Your task to perform on an android device: Go to Google maps Image 0: 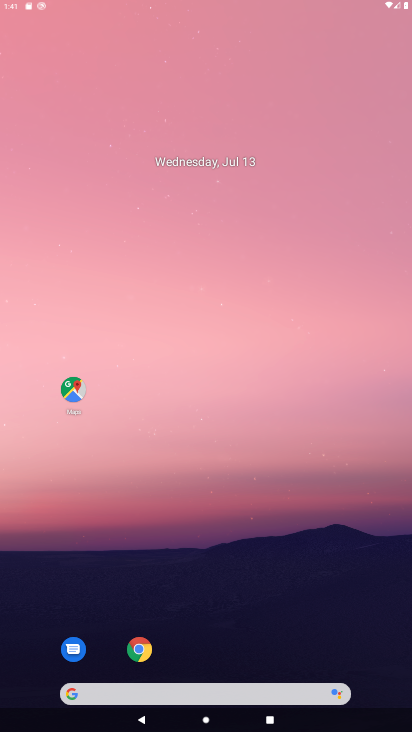
Step 0: press home button
Your task to perform on an android device: Go to Google maps Image 1: 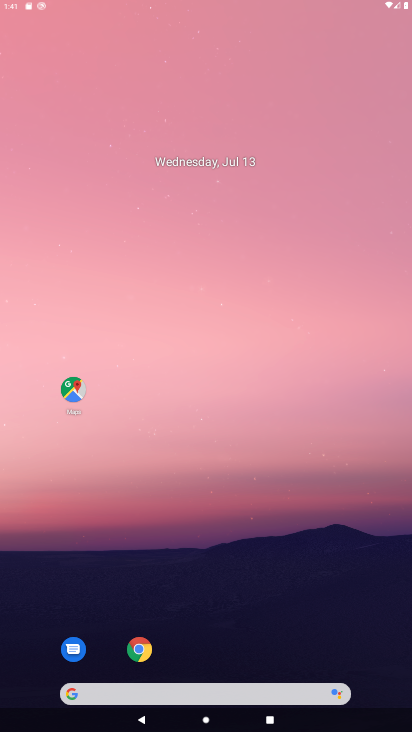
Step 1: click (295, 425)
Your task to perform on an android device: Go to Google maps Image 2: 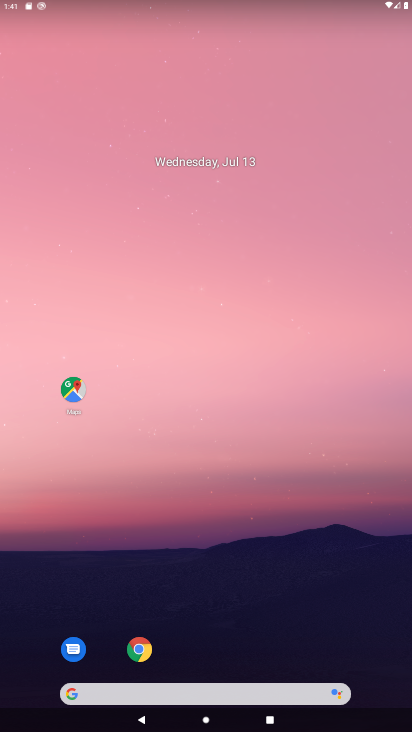
Step 2: click (71, 396)
Your task to perform on an android device: Go to Google maps Image 3: 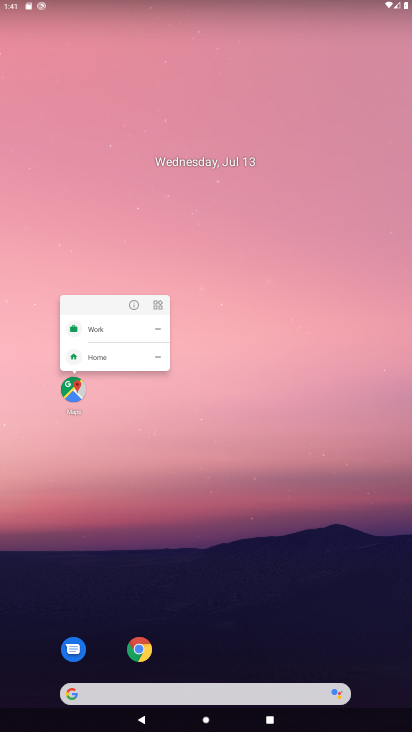
Step 3: click (58, 386)
Your task to perform on an android device: Go to Google maps Image 4: 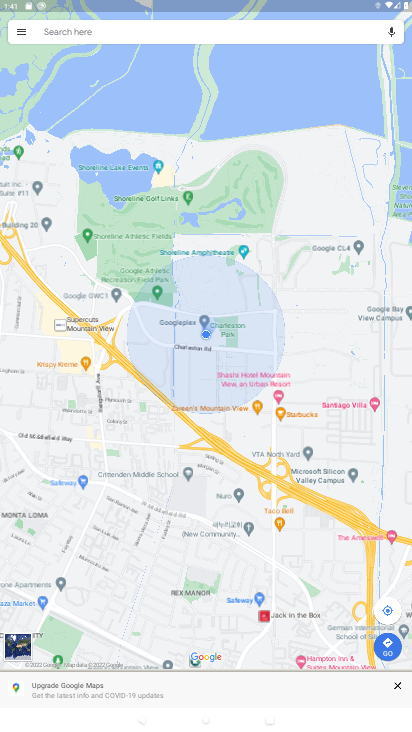
Step 4: click (18, 34)
Your task to perform on an android device: Go to Google maps Image 5: 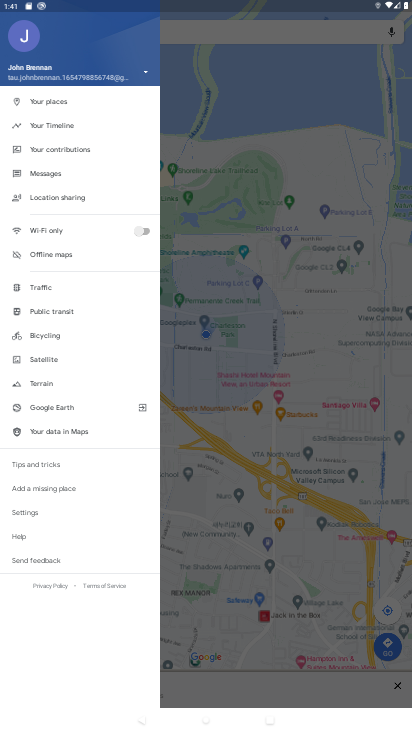
Step 5: click (306, 509)
Your task to perform on an android device: Go to Google maps Image 6: 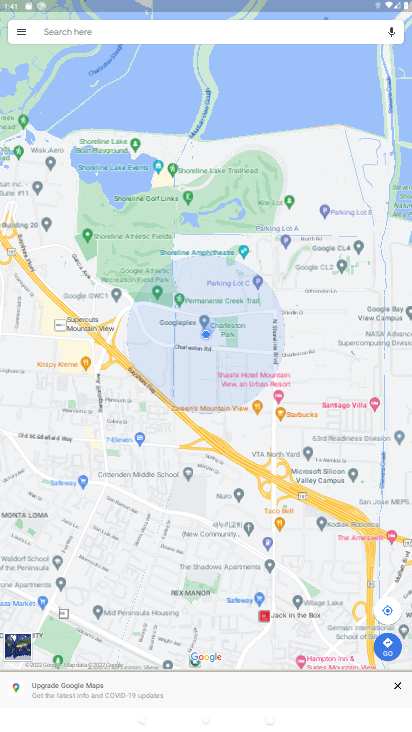
Step 6: task complete